Your task to perform on an android device: Open Google Maps and go to "Timeline" Image 0: 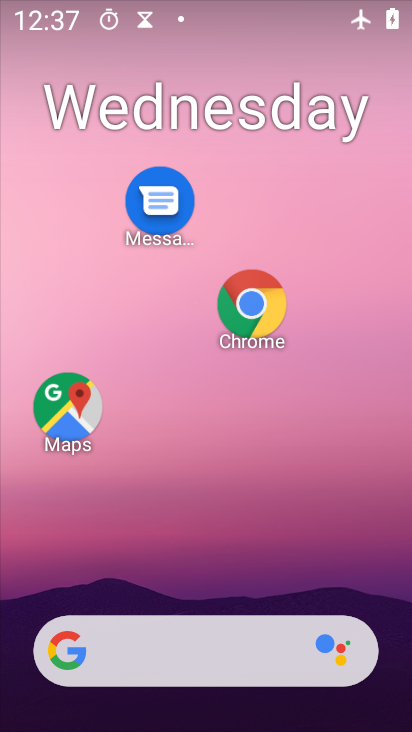
Step 0: drag from (254, 436) to (286, 159)
Your task to perform on an android device: Open Google Maps and go to "Timeline" Image 1: 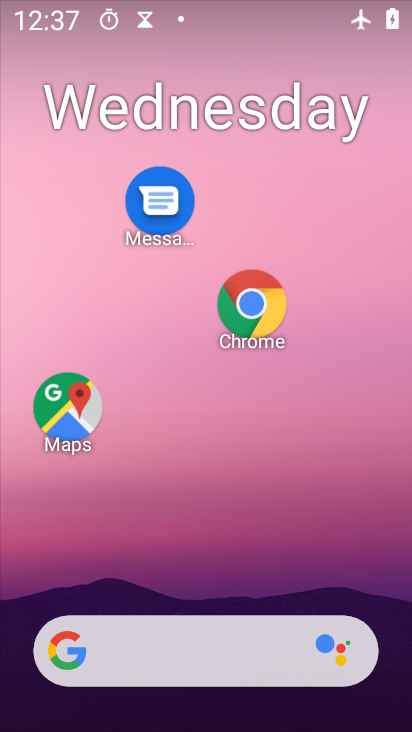
Step 1: drag from (249, 555) to (295, 188)
Your task to perform on an android device: Open Google Maps and go to "Timeline" Image 2: 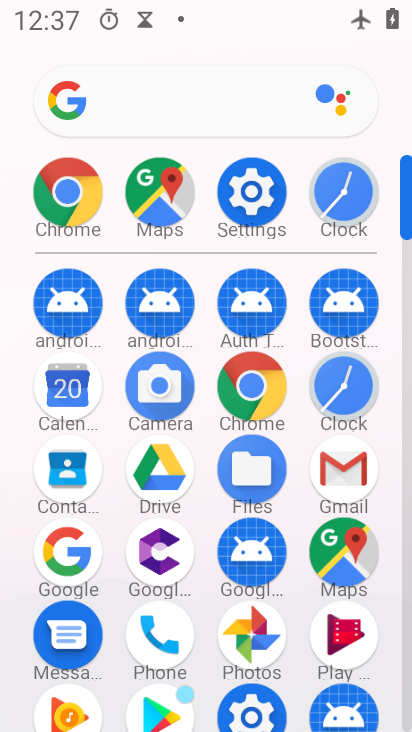
Step 2: click (349, 548)
Your task to perform on an android device: Open Google Maps and go to "Timeline" Image 3: 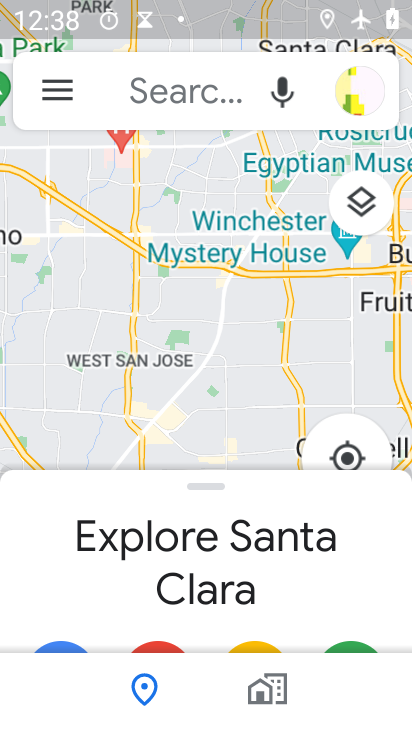
Step 3: click (67, 79)
Your task to perform on an android device: Open Google Maps and go to "Timeline" Image 4: 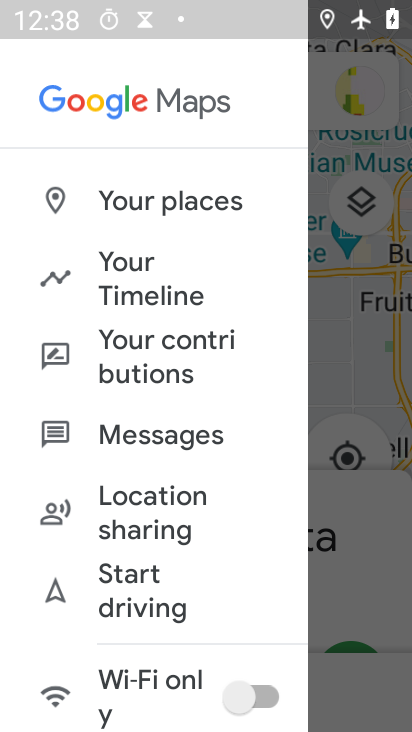
Step 4: click (114, 293)
Your task to perform on an android device: Open Google Maps and go to "Timeline" Image 5: 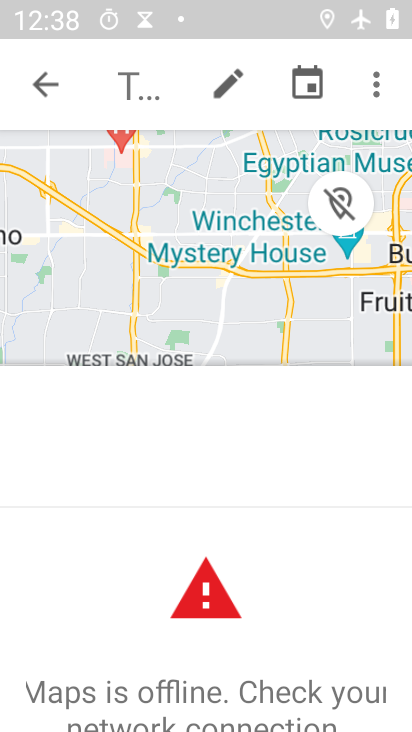
Step 5: task complete